Your task to perform on an android device: Open CNN.com Image 0: 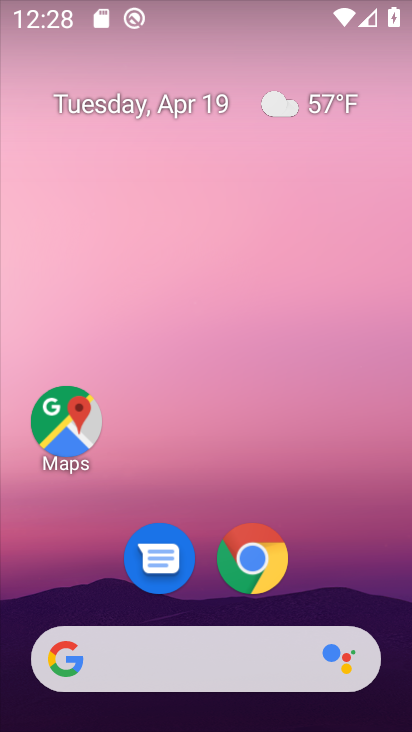
Step 0: click (258, 571)
Your task to perform on an android device: Open CNN.com Image 1: 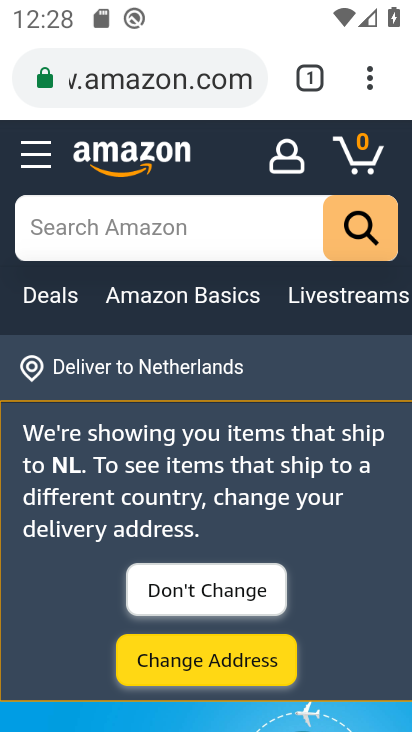
Step 1: click (309, 79)
Your task to perform on an android device: Open CNN.com Image 2: 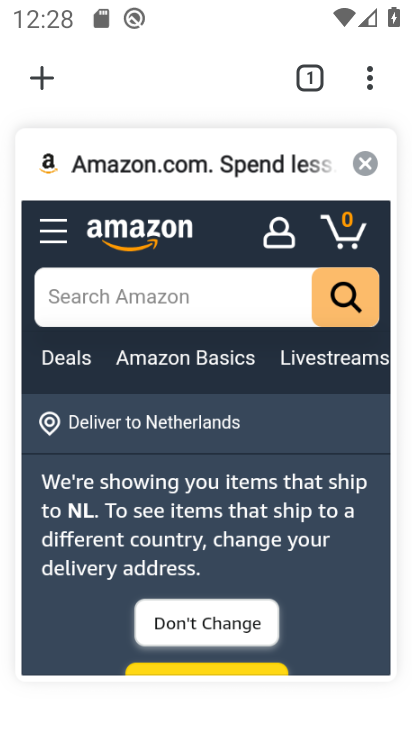
Step 2: click (41, 75)
Your task to perform on an android device: Open CNN.com Image 3: 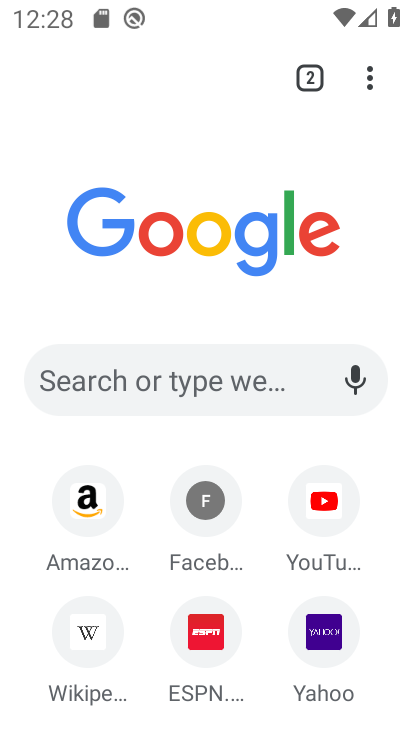
Step 3: click (116, 377)
Your task to perform on an android device: Open CNN.com Image 4: 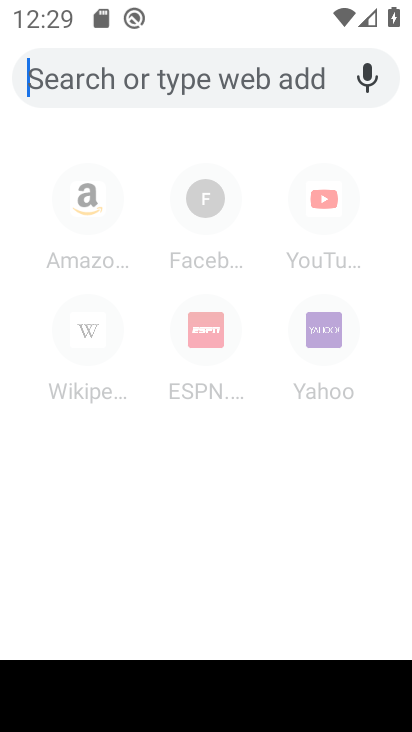
Step 4: type "cnn.com"
Your task to perform on an android device: Open CNN.com Image 5: 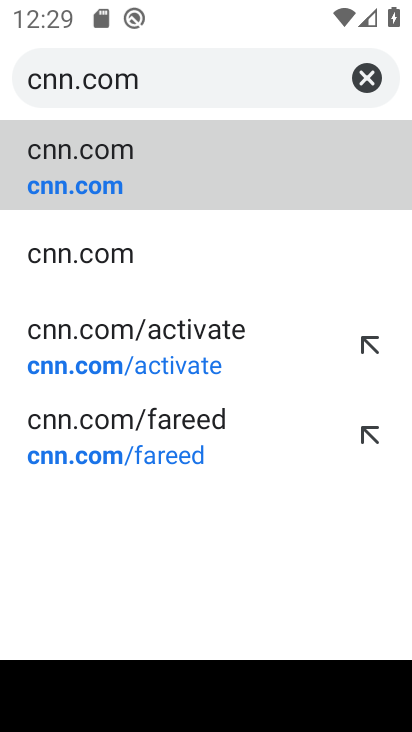
Step 5: click (85, 181)
Your task to perform on an android device: Open CNN.com Image 6: 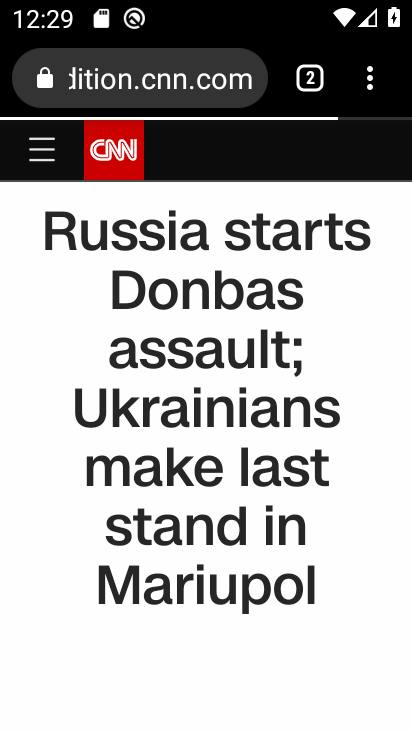
Step 6: task complete